Your task to perform on an android device: Open Chrome and go to the settings page Image 0: 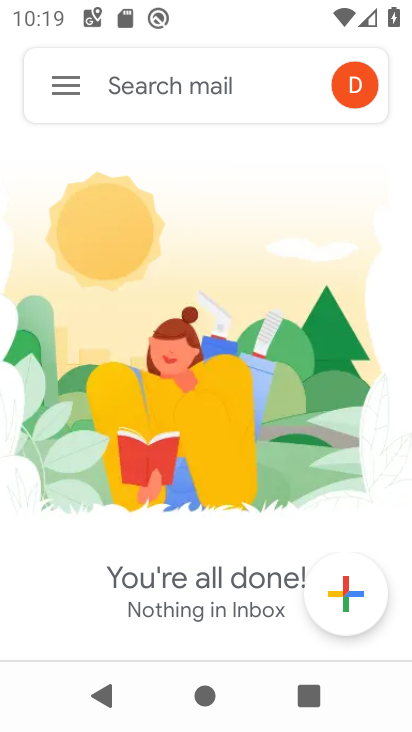
Step 0: press home button
Your task to perform on an android device: Open Chrome and go to the settings page Image 1: 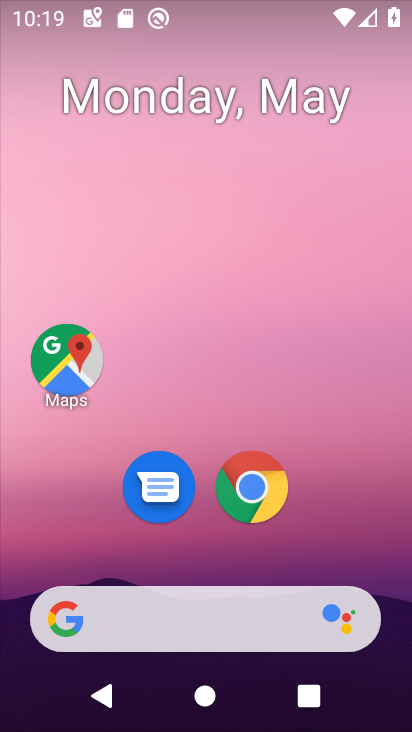
Step 1: click (242, 474)
Your task to perform on an android device: Open Chrome and go to the settings page Image 2: 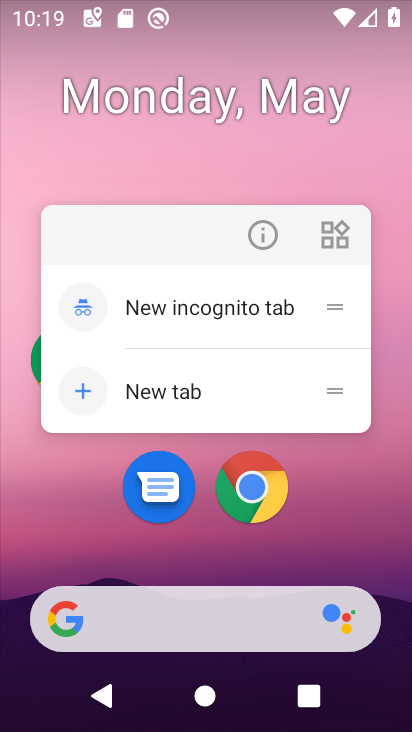
Step 2: click (243, 470)
Your task to perform on an android device: Open Chrome and go to the settings page Image 3: 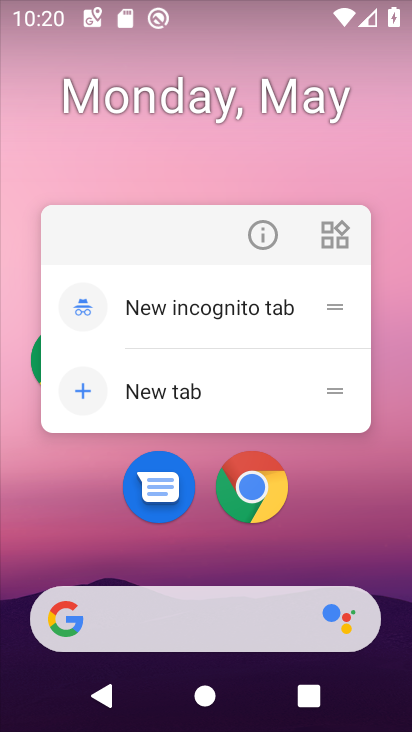
Step 3: click (254, 496)
Your task to perform on an android device: Open Chrome and go to the settings page Image 4: 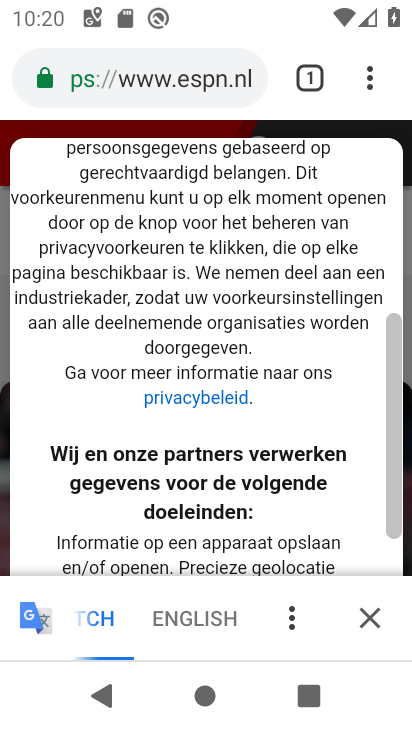
Step 4: click (364, 84)
Your task to perform on an android device: Open Chrome and go to the settings page Image 5: 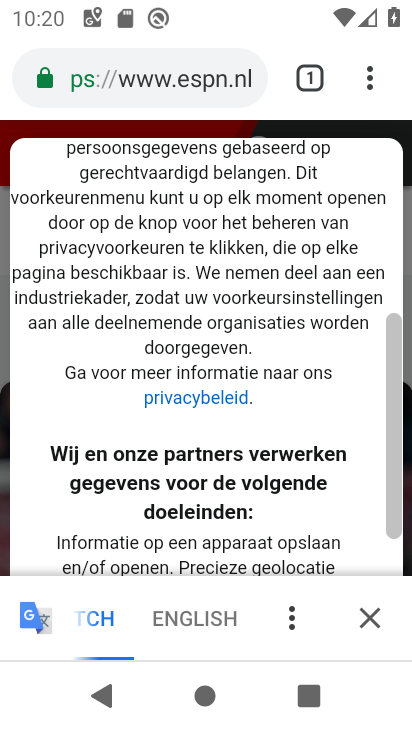
Step 5: click (362, 88)
Your task to perform on an android device: Open Chrome and go to the settings page Image 6: 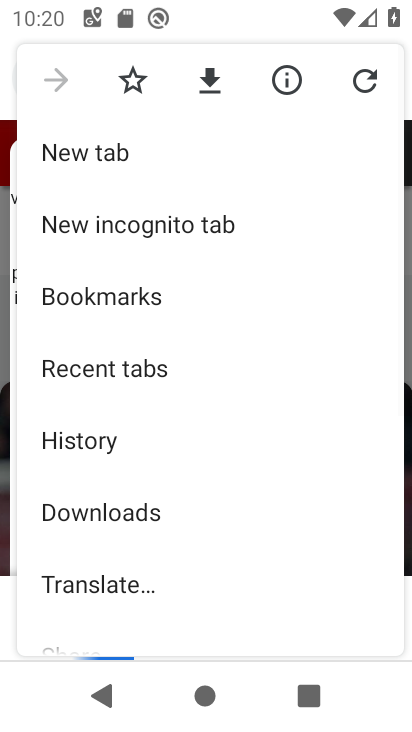
Step 6: drag from (165, 582) to (190, 320)
Your task to perform on an android device: Open Chrome and go to the settings page Image 7: 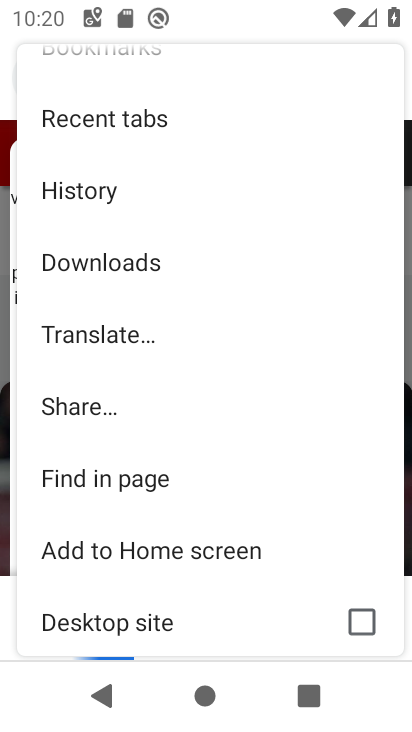
Step 7: drag from (194, 516) to (253, 263)
Your task to perform on an android device: Open Chrome and go to the settings page Image 8: 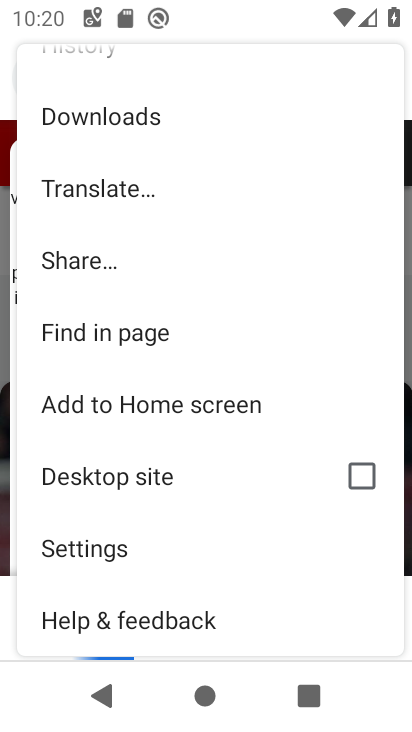
Step 8: click (125, 558)
Your task to perform on an android device: Open Chrome and go to the settings page Image 9: 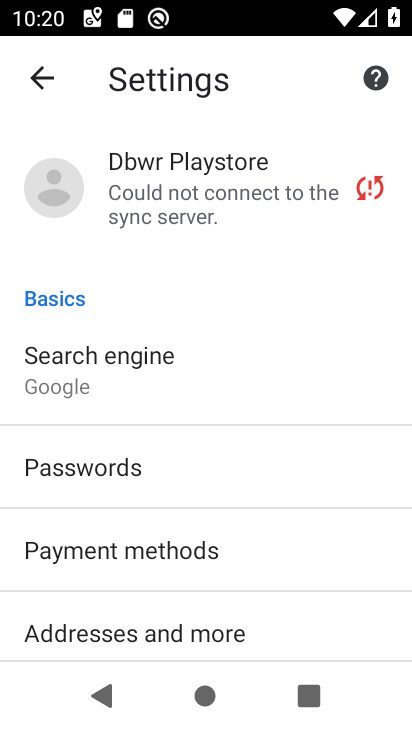
Step 9: task complete